Your task to perform on an android device: Open Google Chrome and click the shortcut for Amazon.com Image 0: 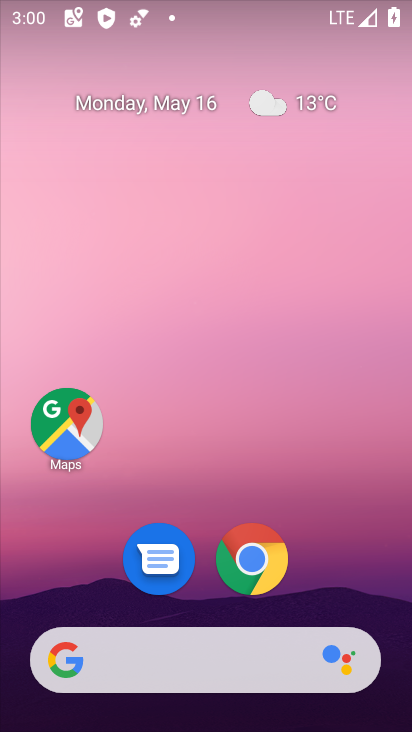
Step 0: click (257, 543)
Your task to perform on an android device: Open Google Chrome and click the shortcut for Amazon.com Image 1: 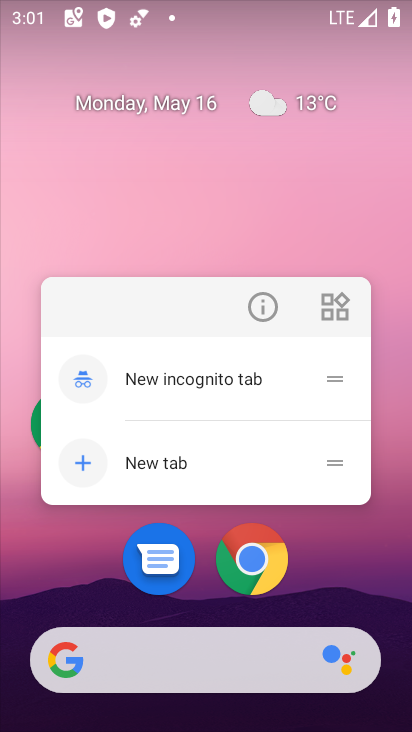
Step 1: click (257, 555)
Your task to perform on an android device: Open Google Chrome and click the shortcut for Amazon.com Image 2: 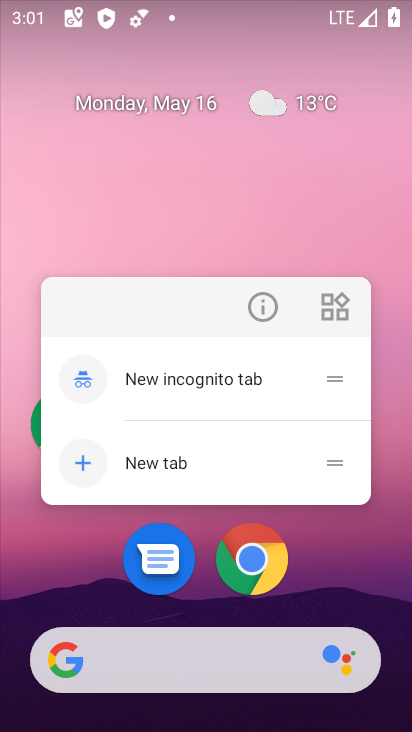
Step 2: click (254, 558)
Your task to perform on an android device: Open Google Chrome and click the shortcut for Amazon.com Image 3: 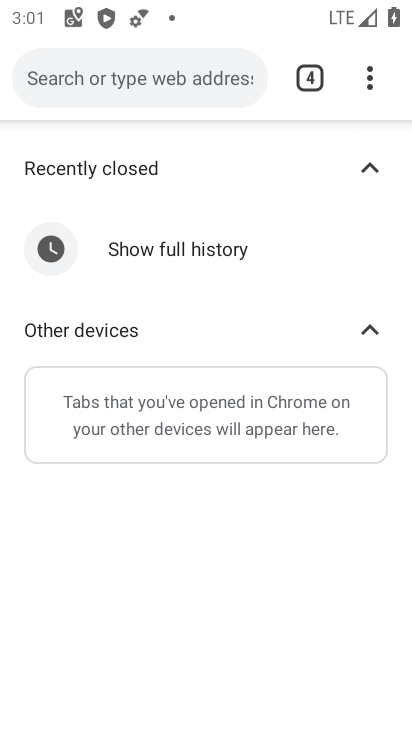
Step 3: click (302, 85)
Your task to perform on an android device: Open Google Chrome and click the shortcut for Amazon.com Image 4: 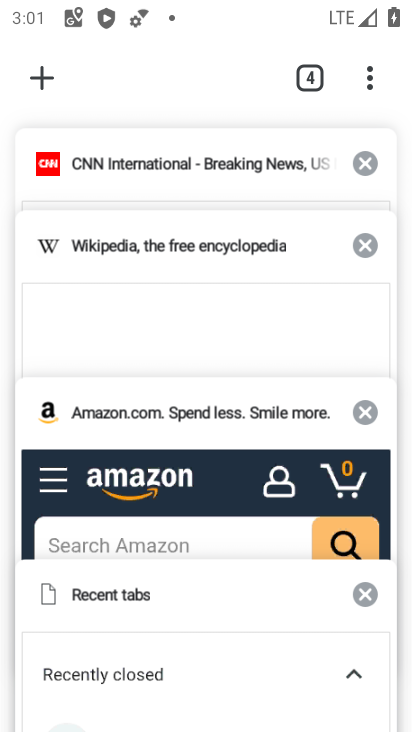
Step 4: click (120, 419)
Your task to perform on an android device: Open Google Chrome and click the shortcut for Amazon.com Image 5: 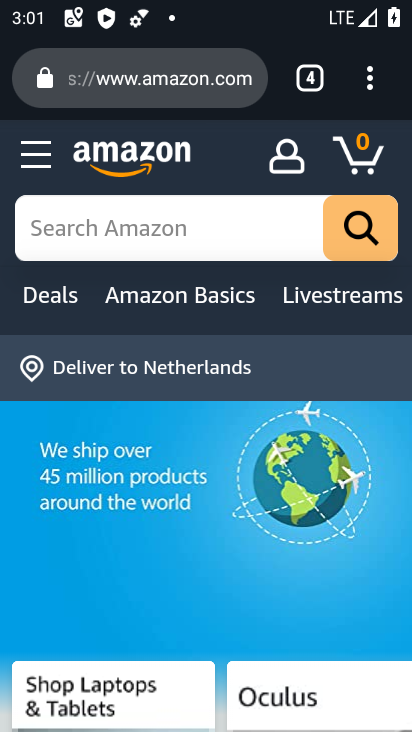
Step 5: task complete